Your task to perform on an android device: set the timer Image 0: 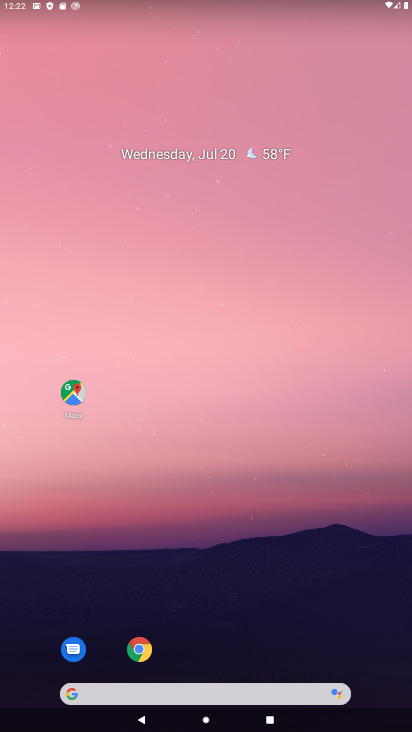
Step 0: drag from (208, 667) to (234, 132)
Your task to perform on an android device: set the timer Image 1: 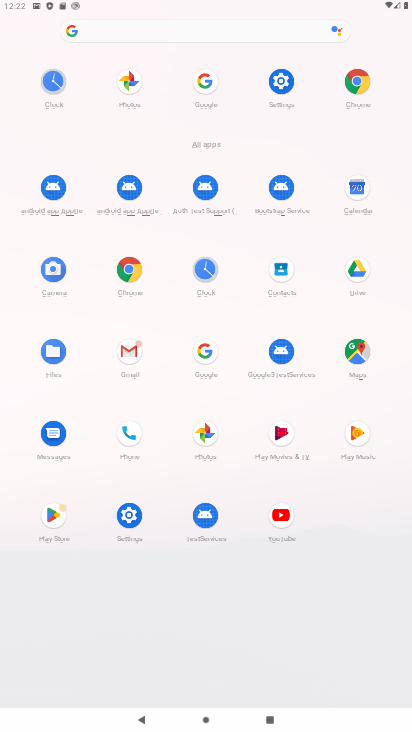
Step 1: click (202, 272)
Your task to perform on an android device: set the timer Image 2: 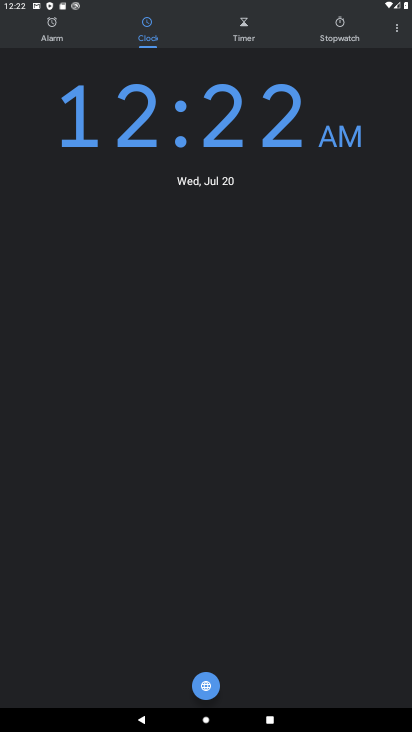
Step 2: click (226, 33)
Your task to perform on an android device: set the timer Image 3: 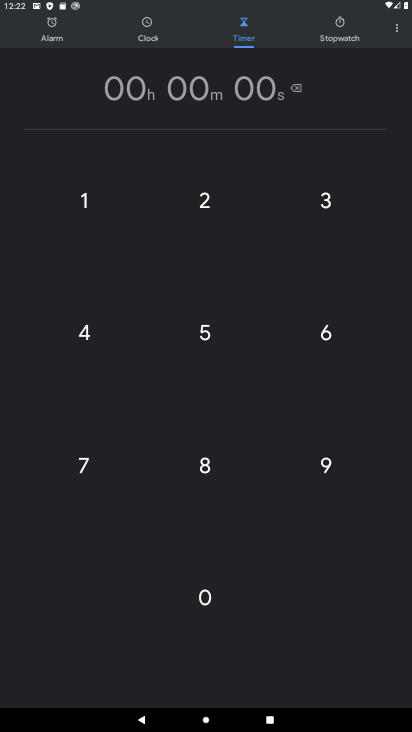
Step 3: click (192, 201)
Your task to perform on an android device: set the timer Image 4: 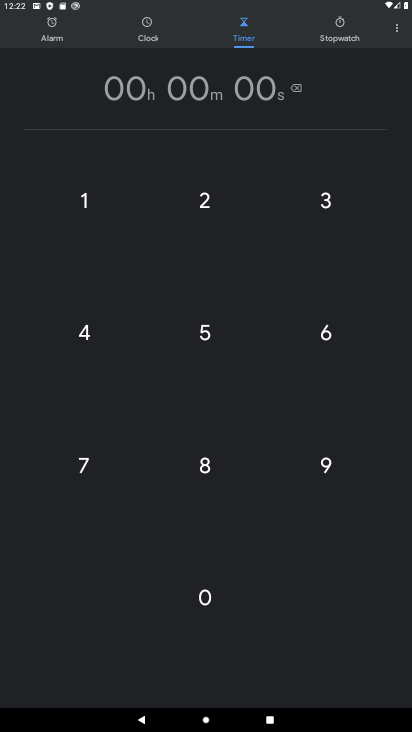
Step 4: click (192, 201)
Your task to perform on an android device: set the timer Image 5: 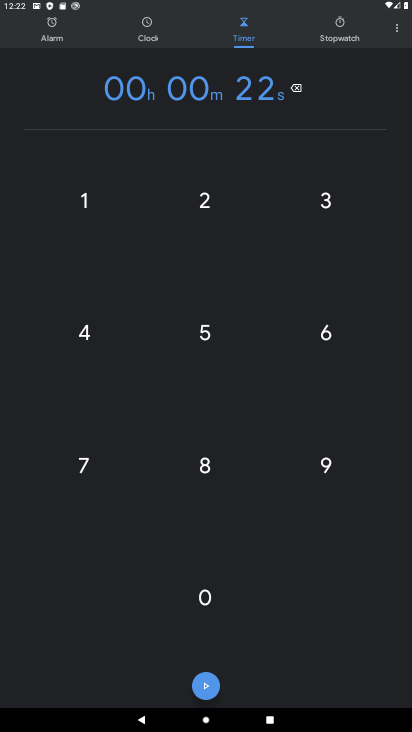
Step 5: task complete